Your task to perform on an android device: Go to calendar. Show me events next week Image 0: 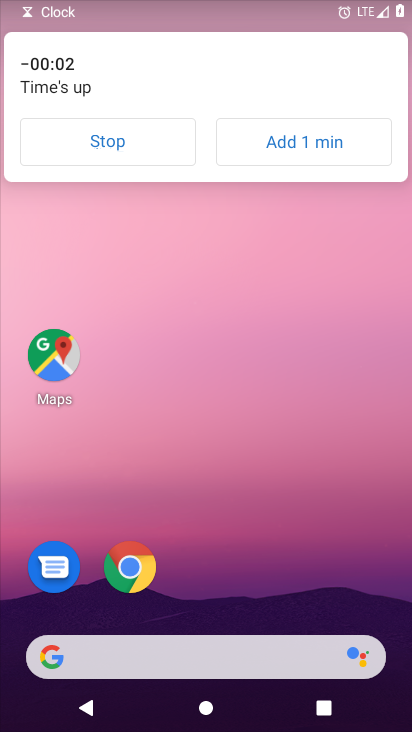
Step 0: click (108, 149)
Your task to perform on an android device: Go to calendar. Show me events next week Image 1: 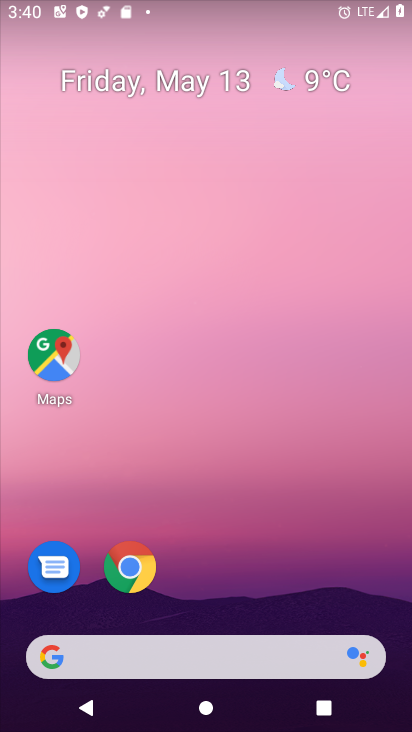
Step 1: drag from (319, 575) to (396, 34)
Your task to perform on an android device: Go to calendar. Show me events next week Image 2: 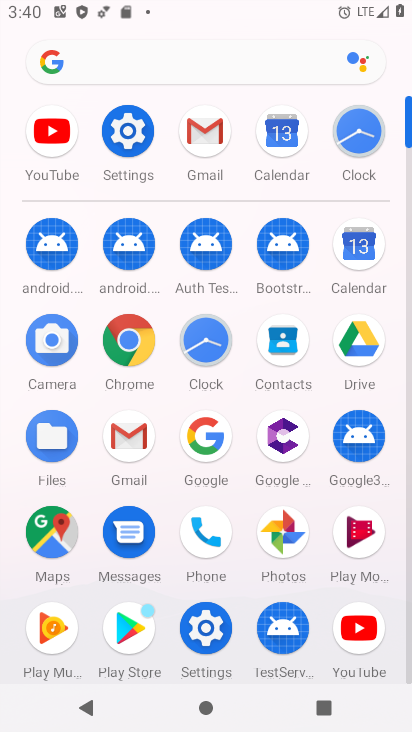
Step 2: click (278, 143)
Your task to perform on an android device: Go to calendar. Show me events next week Image 3: 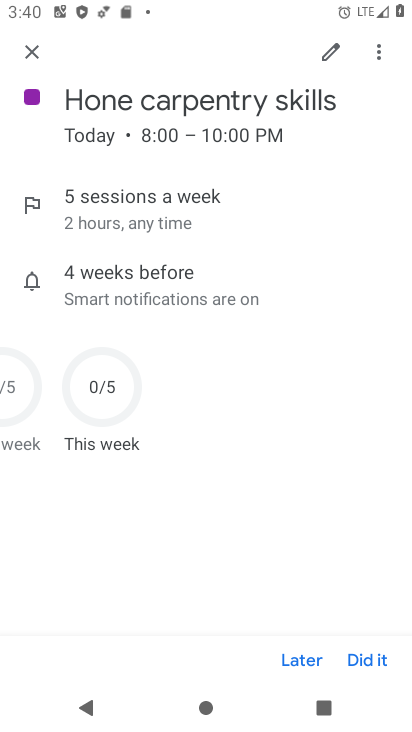
Step 3: click (33, 54)
Your task to perform on an android device: Go to calendar. Show me events next week Image 4: 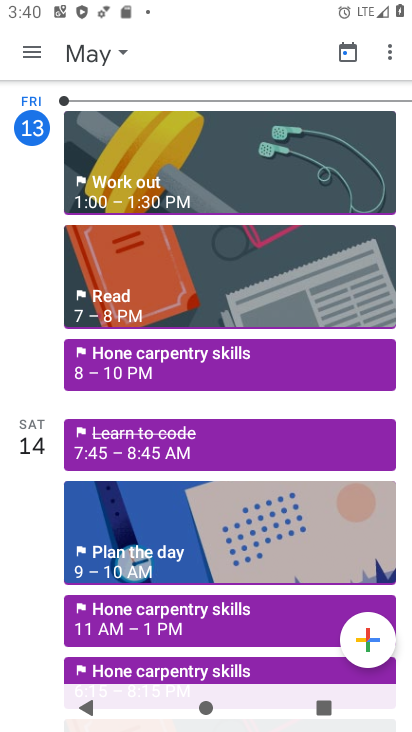
Step 4: click (35, 54)
Your task to perform on an android device: Go to calendar. Show me events next week Image 5: 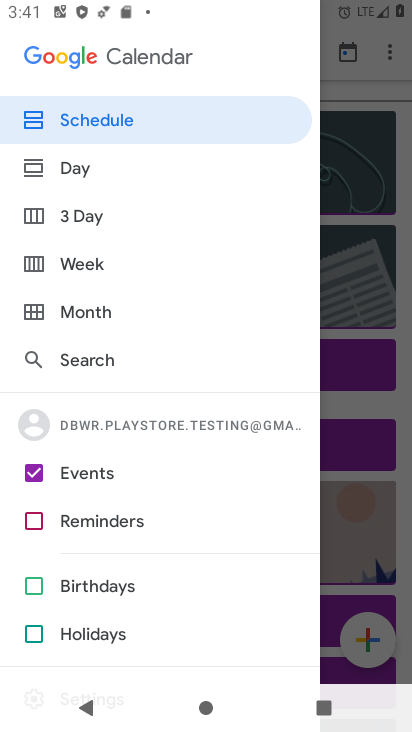
Step 5: click (73, 268)
Your task to perform on an android device: Go to calendar. Show me events next week Image 6: 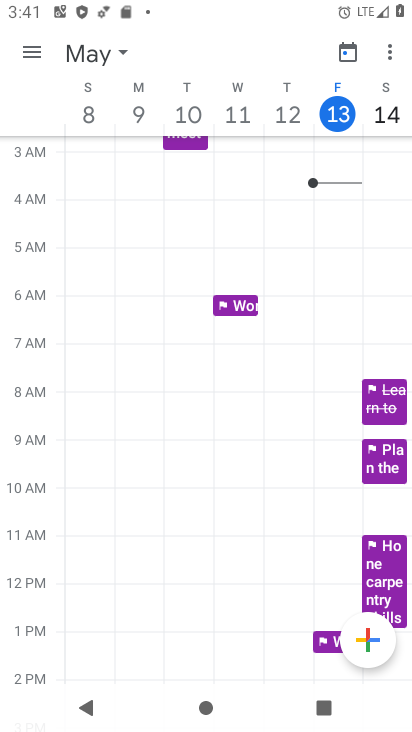
Step 6: task complete